Your task to perform on an android device: Search for sushi restaurants on Maps Image 0: 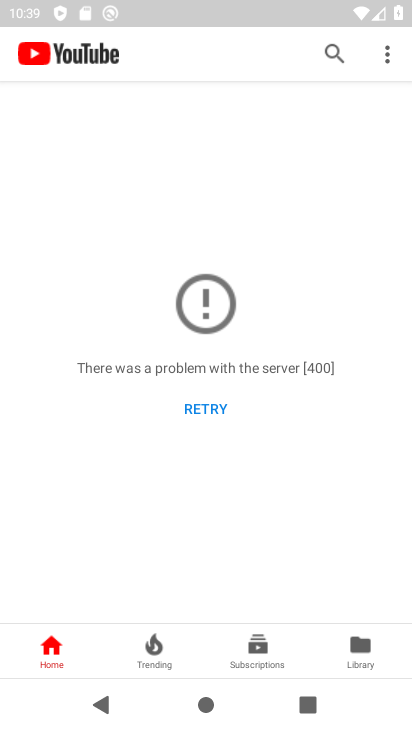
Step 0: press home button
Your task to perform on an android device: Search for sushi restaurants on Maps Image 1: 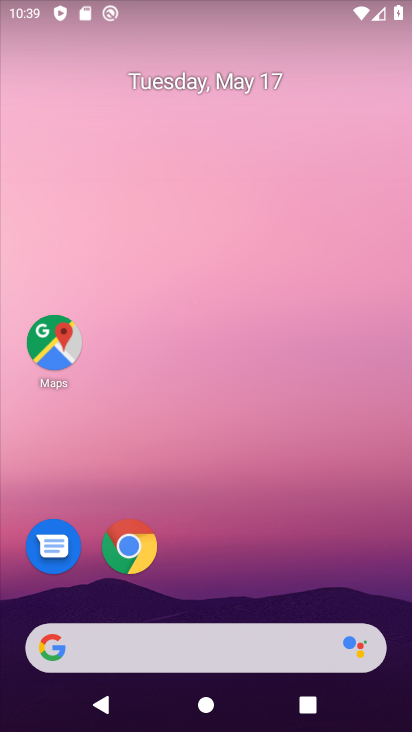
Step 1: click (51, 332)
Your task to perform on an android device: Search for sushi restaurants on Maps Image 2: 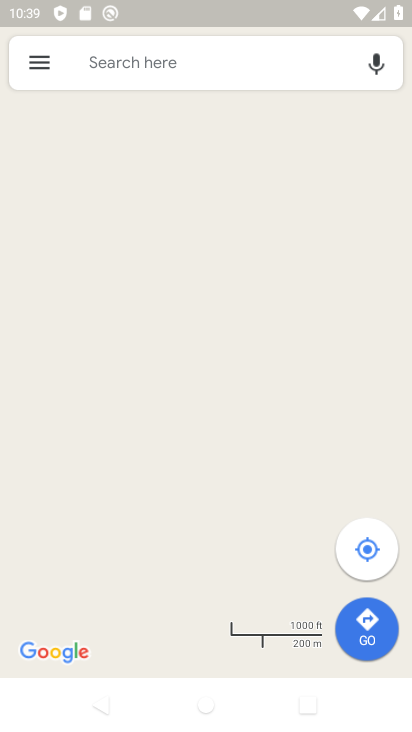
Step 2: click (145, 67)
Your task to perform on an android device: Search for sushi restaurants on Maps Image 3: 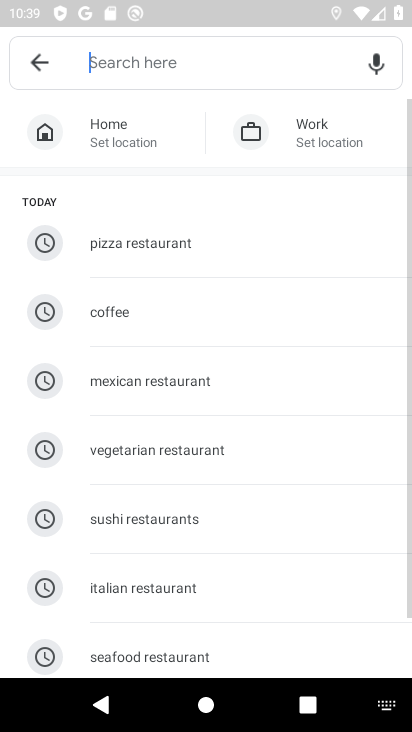
Step 3: type "sushi restaurants"
Your task to perform on an android device: Search for sushi restaurants on Maps Image 4: 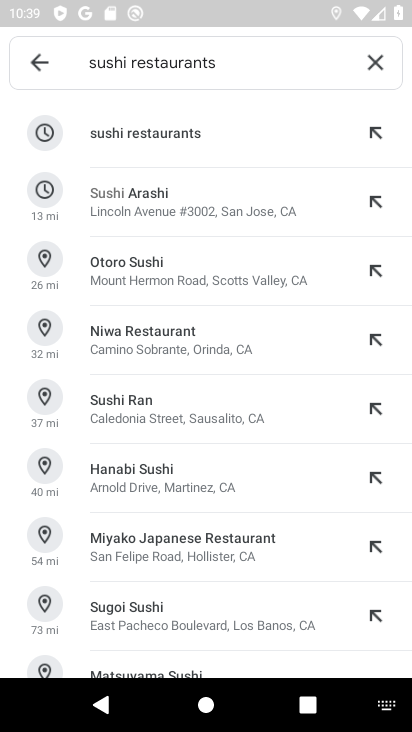
Step 4: click (196, 147)
Your task to perform on an android device: Search for sushi restaurants on Maps Image 5: 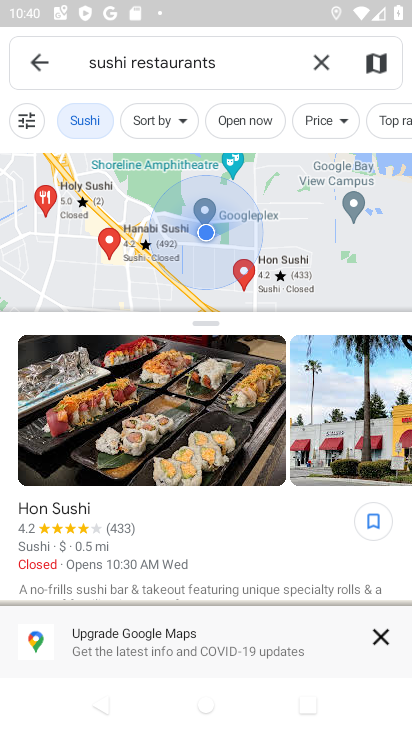
Step 5: click (380, 633)
Your task to perform on an android device: Search for sushi restaurants on Maps Image 6: 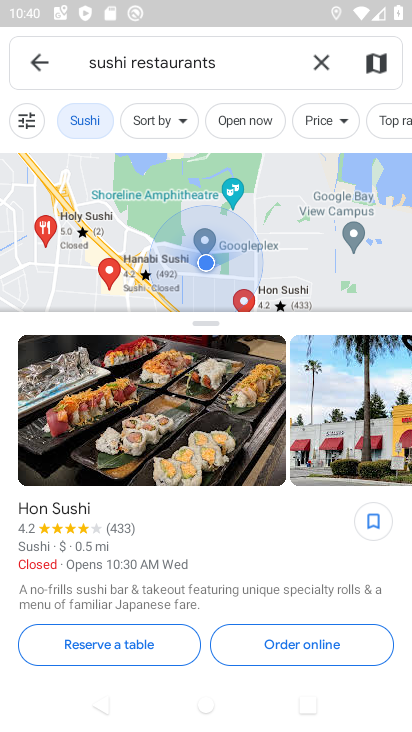
Step 6: task complete